Your task to perform on an android device: Go to eBay Image 0: 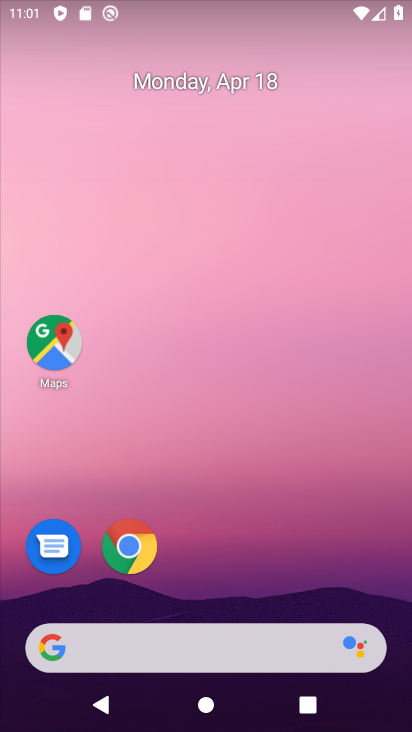
Step 0: drag from (340, 574) to (372, 107)
Your task to perform on an android device: Go to eBay Image 1: 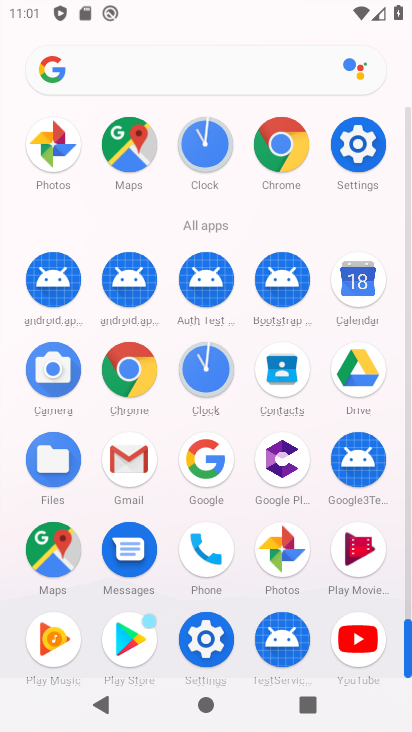
Step 1: click (131, 372)
Your task to perform on an android device: Go to eBay Image 2: 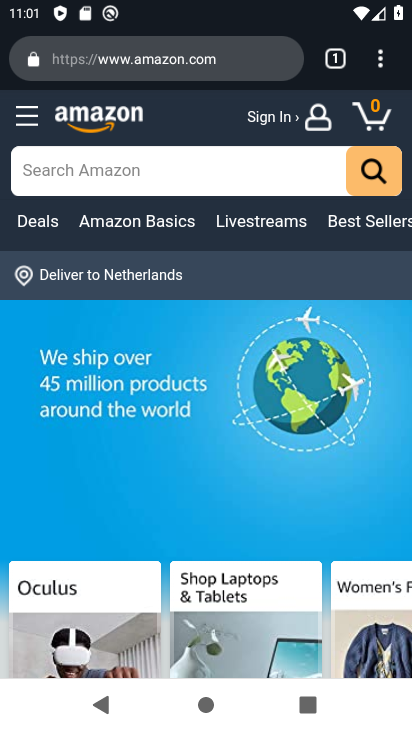
Step 2: press back button
Your task to perform on an android device: Go to eBay Image 3: 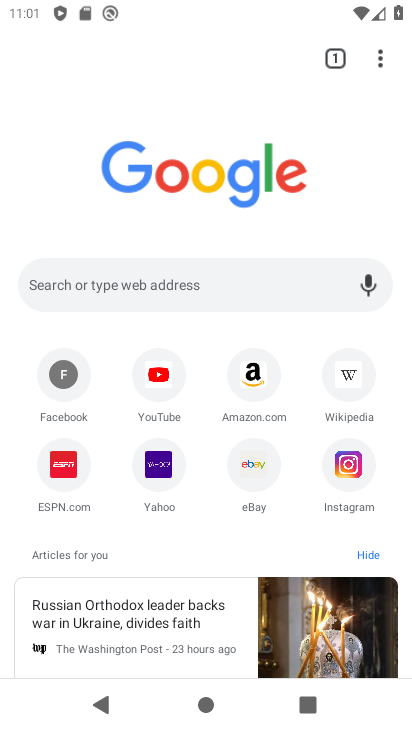
Step 3: click (255, 472)
Your task to perform on an android device: Go to eBay Image 4: 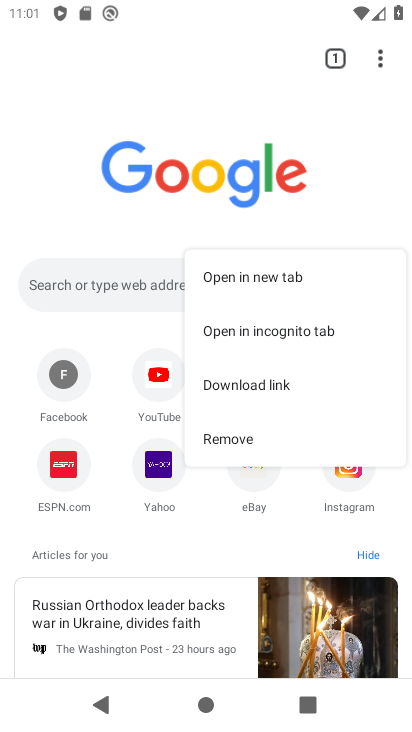
Step 4: click (254, 472)
Your task to perform on an android device: Go to eBay Image 5: 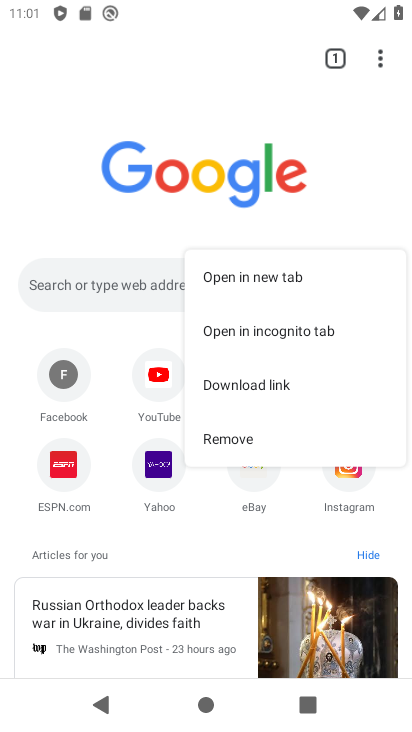
Step 5: click (255, 476)
Your task to perform on an android device: Go to eBay Image 6: 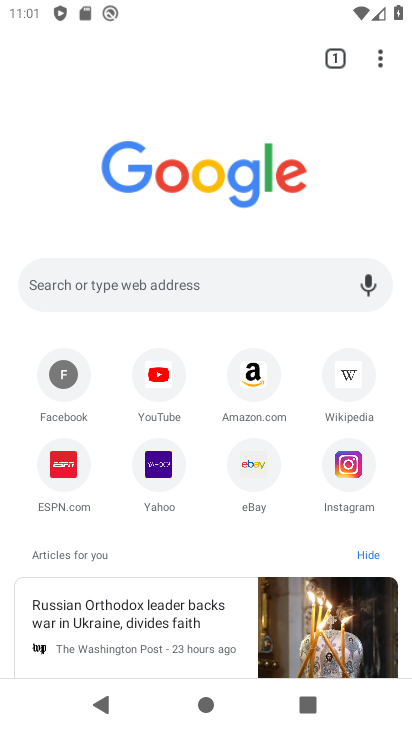
Step 6: click (252, 471)
Your task to perform on an android device: Go to eBay Image 7: 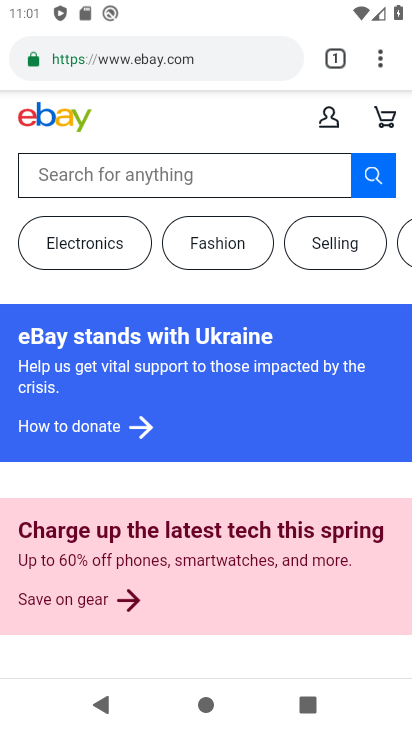
Step 7: task complete